Your task to perform on an android device: Do I have any events this weekend? Image 0: 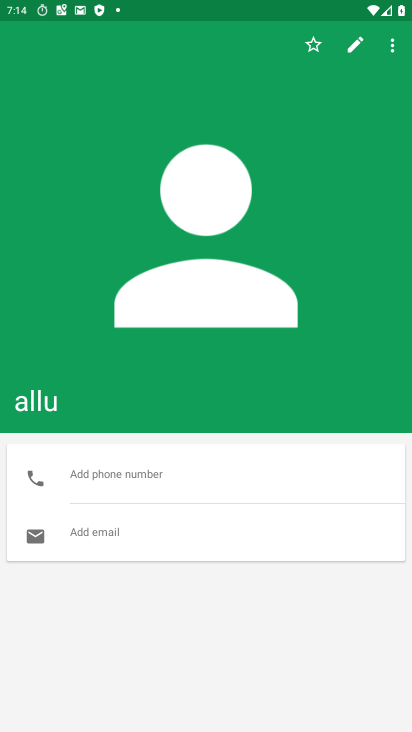
Step 0: press home button
Your task to perform on an android device: Do I have any events this weekend? Image 1: 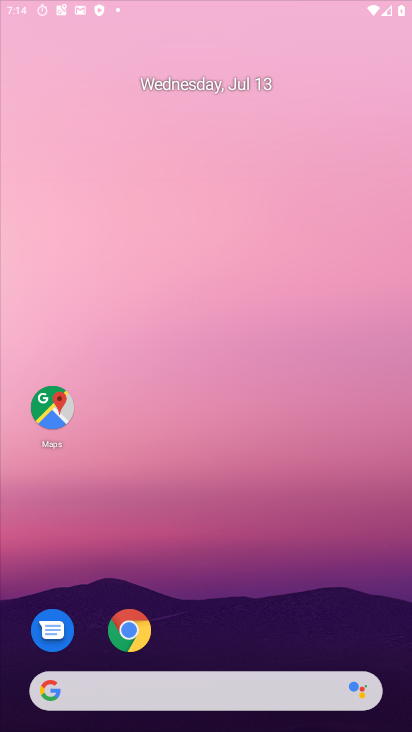
Step 1: drag from (333, 655) to (330, 6)
Your task to perform on an android device: Do I have any events this weekend? Image 2: 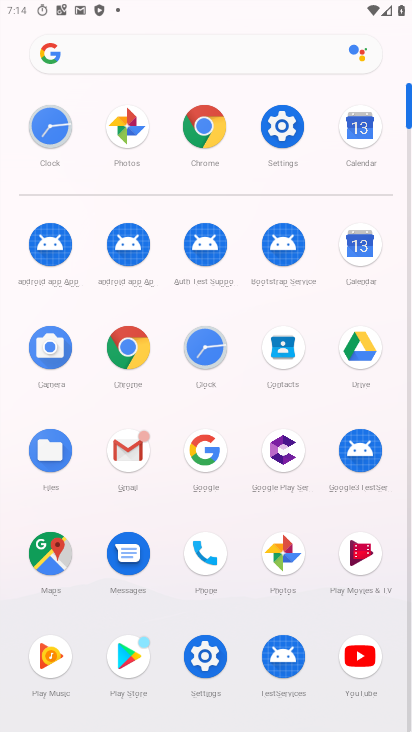
Step 2: click (364, 244)
Your task to perform on an android device: Do I have any events this weekend? Image 3: 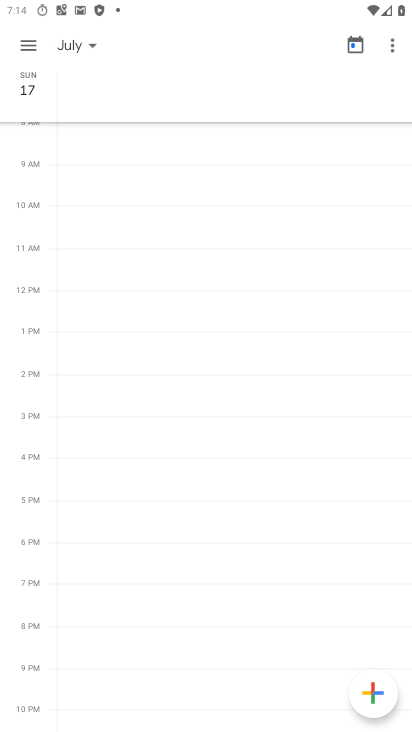
Step 3: click (73, 57)
Your task to perform on an android device: Do I have any events this weekend? Image 4: 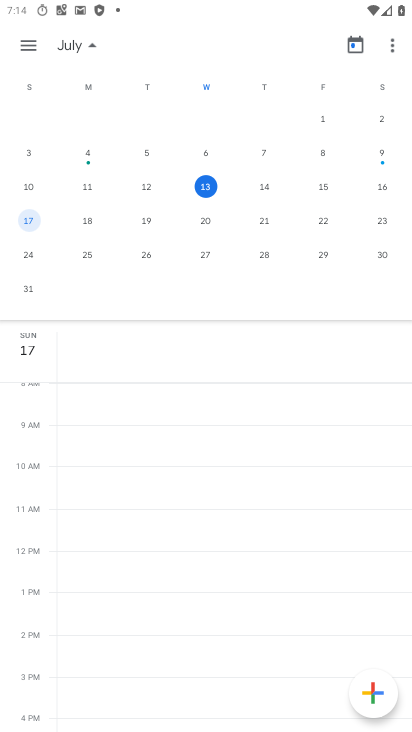
Step 4: click (22, 214)
Your task to perform on an android device: Do I have any events this weekend? Image 5: 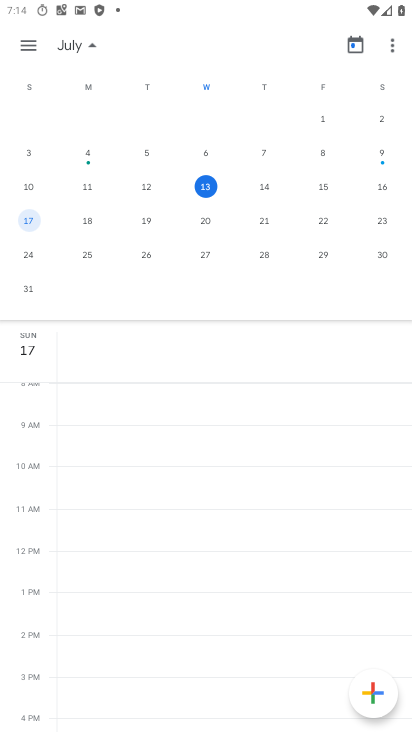
Step 5: click (23, 215)
Your task to perform on an android device: Do I have any events this weekend? Image 6: 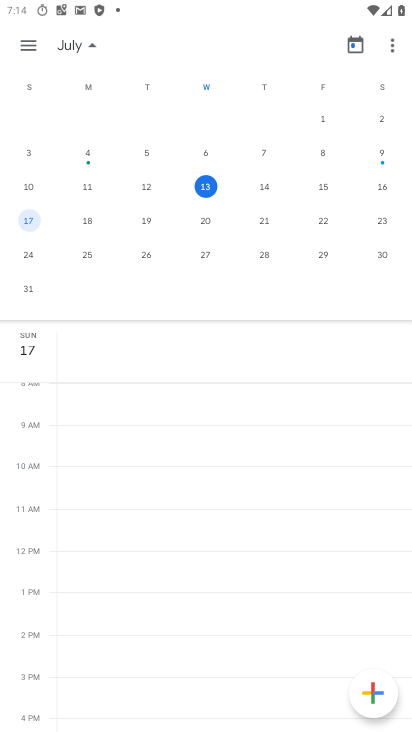
Step 6: click (197, 525)
Your task to perform on an android device: Do I have any events this weekend? Image 7: 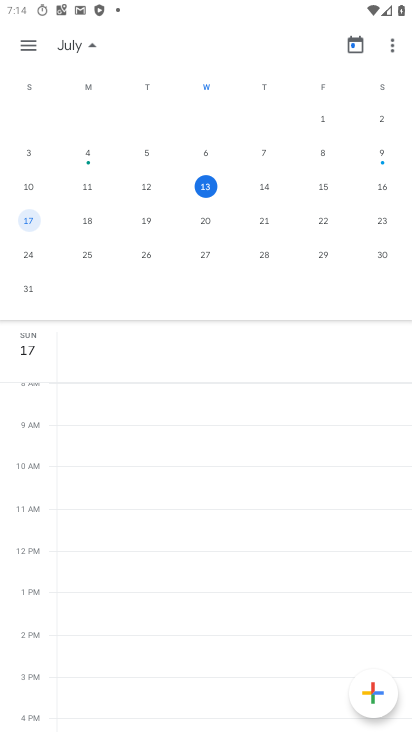
Step 7: task complete